Your task to perform on an android device: Open notification settings Image 0: 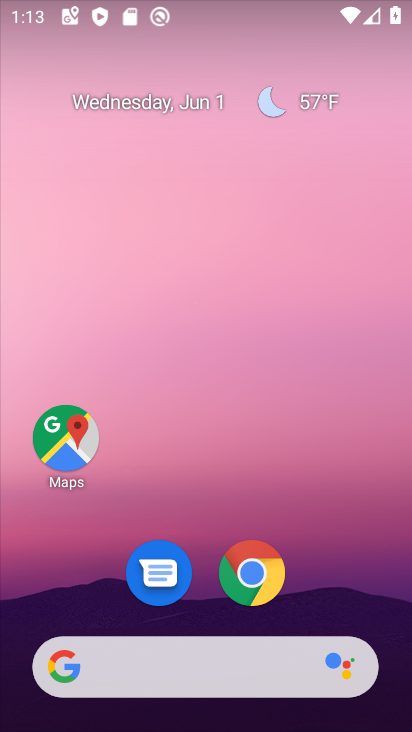
Step 0: drag from (202, 574) to (162, 125)
Your task to perform on an android device: Open notification settings Image 1: 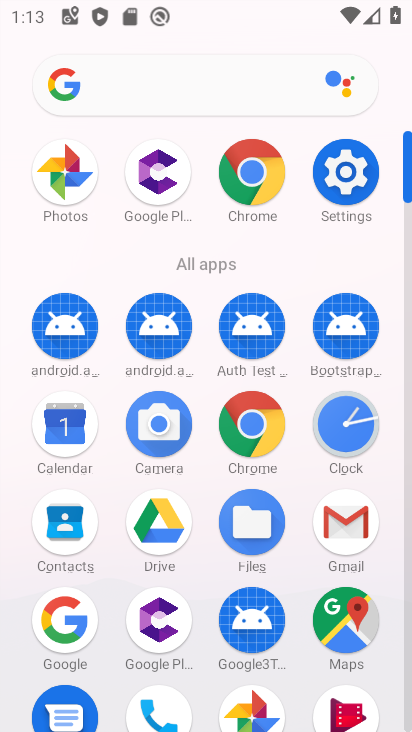
Step 1: click (352, 168)
Your task to perform on an android device: Open notification settings Image 2: 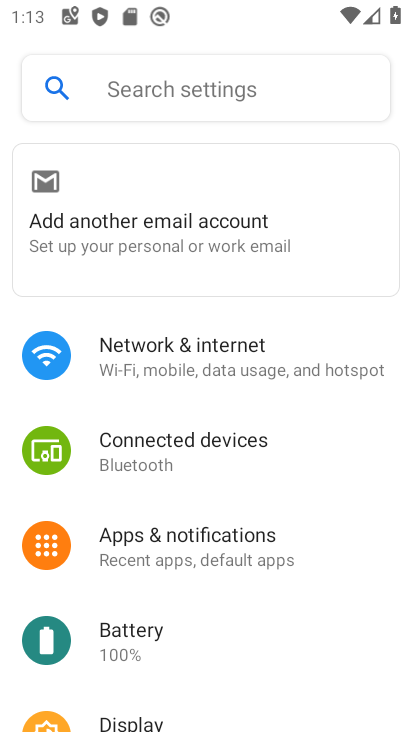
Step 2: click (206, 547)
Your task to perform on an android device: Open notification settings Image 3: 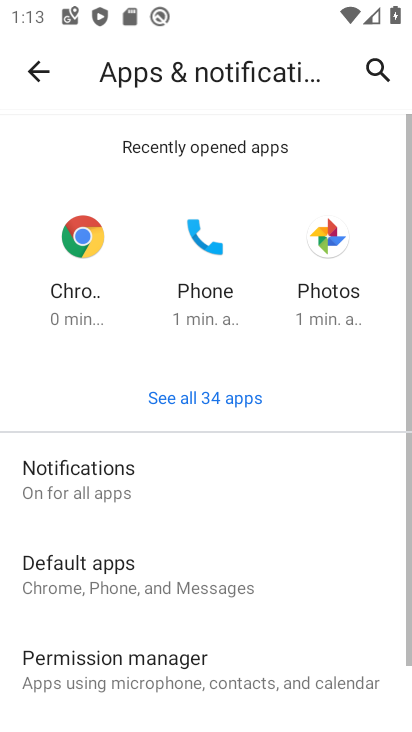
Step 3: task complete